Your task to perform on an android device: Go to Reddit.com Image 0: 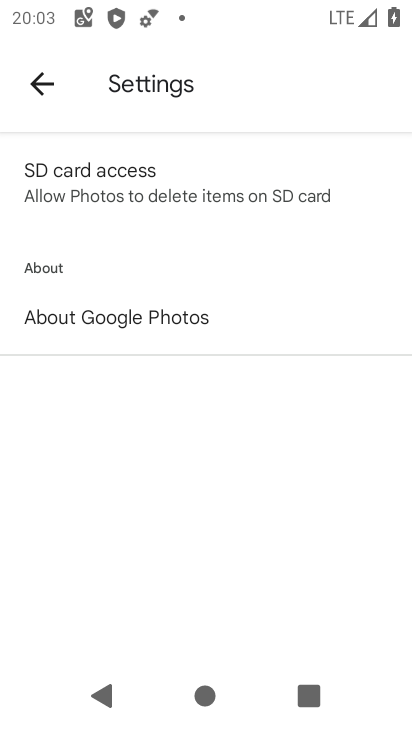
Step 0: press home button
Your task to perform on an android device: Go to Reddit.com Image 1: 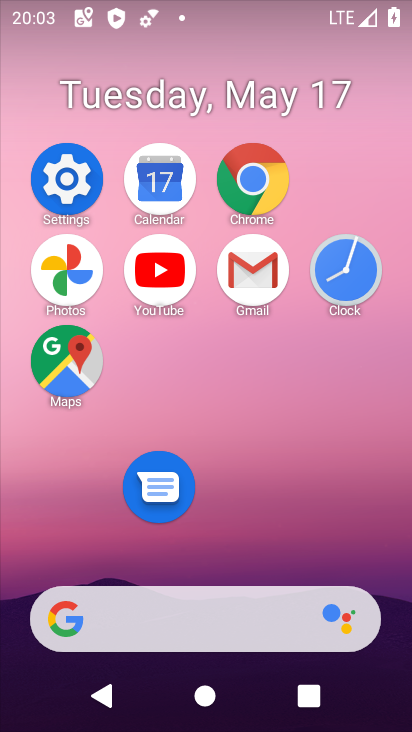
Step 1: click (253, 198)
Your task to perform on an android device: Go to Reddit.com Image 2: 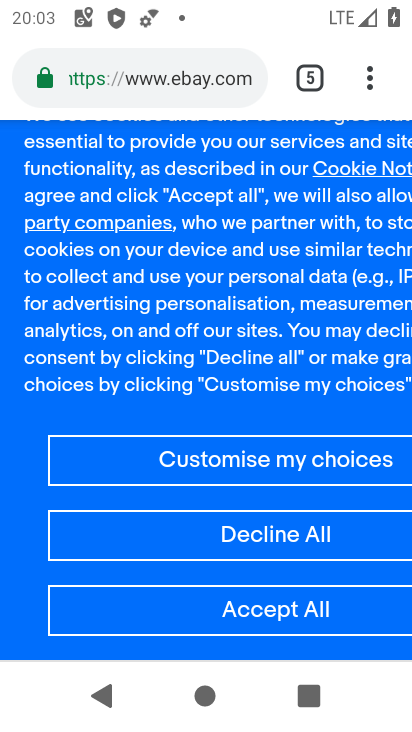
Step 2: click (313, 76)
Your task to perform on an android device: Go to Reddit.com Image 3: 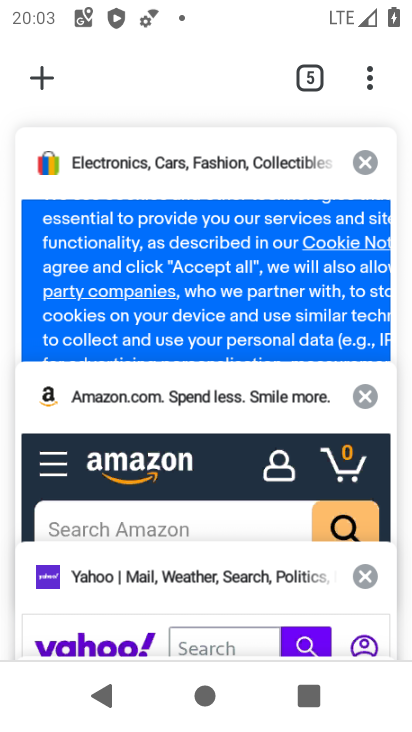
Step 3: drag from (188, 443) to (151, 186)
Your task to perform on an android device: Go to Reddit.com Image 4: 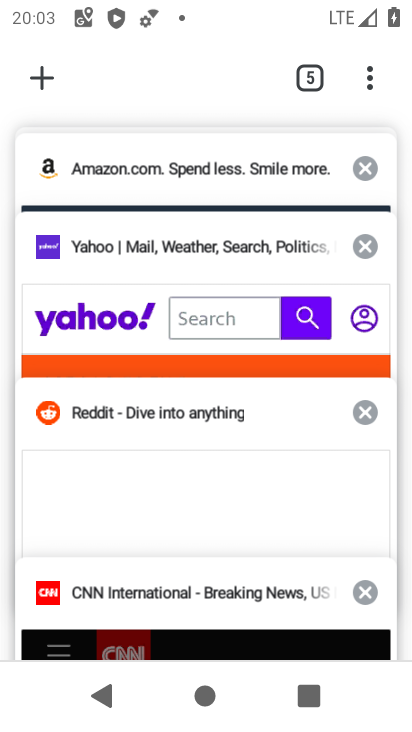
Step 4: click (134, 430)
Your task to perform on an android device: Go to Reddit.com Image 5: 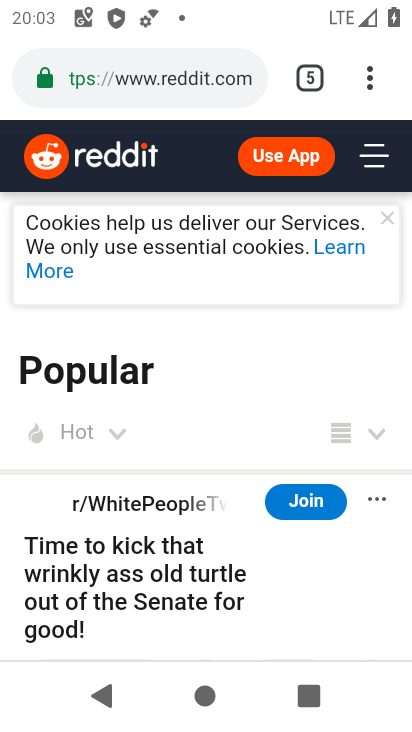
Step 5: task complete